Your task to perform on an android device: Open Youtube and go to "Your channel" Image 0: 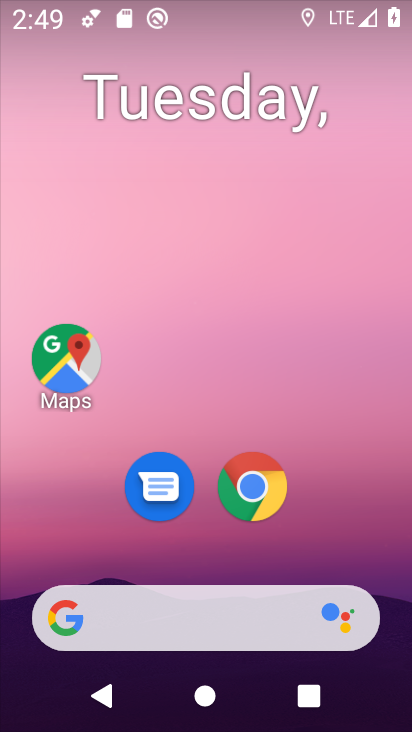
Step 0: press home button
Your task to perform on an android device: Open Youtube and go to "Your channel" Image 1: 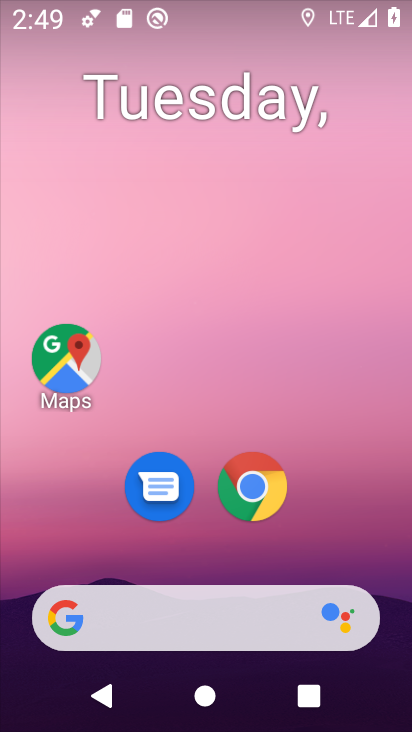
Step 1: drag from (350, 519) to (341, 77)
Your task to perform on an android device: Open Youtube and go to "Your channel" Image 2: 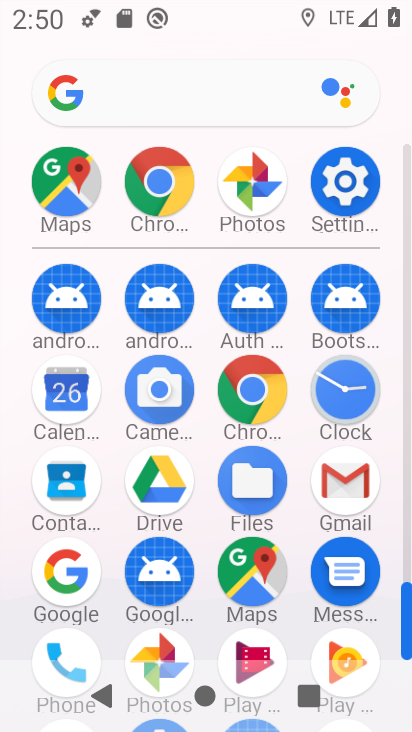
Step 2: drag from (397, 518) to (383, 237)
Your task to perform on an android device: Open Youtube and go to "Your channel" Image 3: 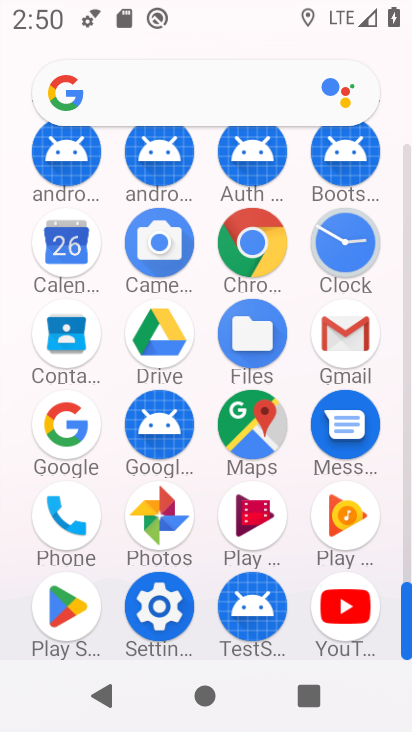
Step 3: click (341, 603)
Your task to perform on an android device: Open Youtube and go to "Your channel" Image 4: 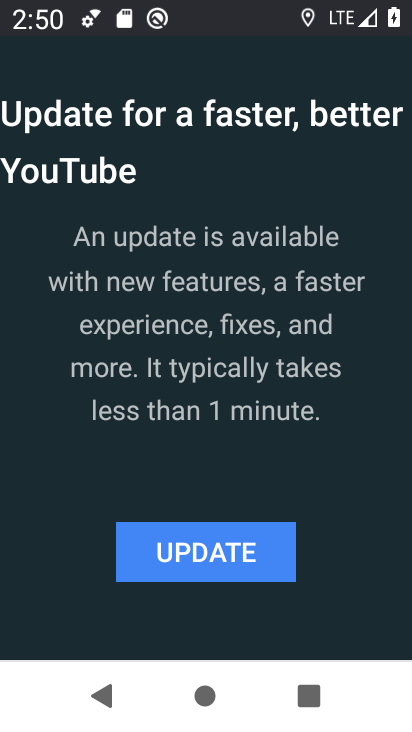
Step 4: click (234, 568)
Your task to perform on an android device: Open Youtube and go to "Your channel" Image 5: 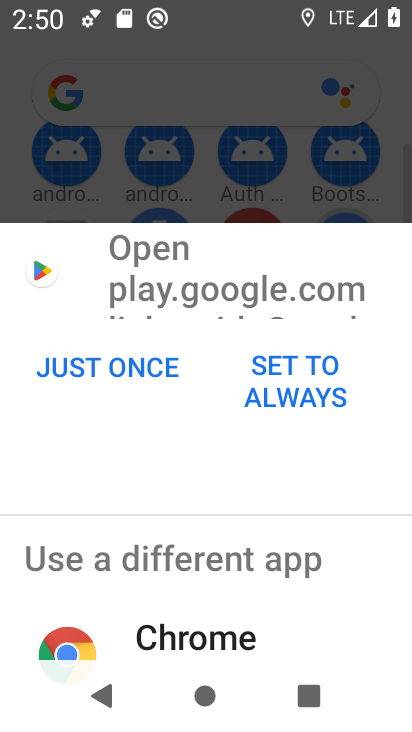
Step 5: click (107, 369)
Your task to perform on an android device: Open Youtube and go to "Your channel" Image 6: 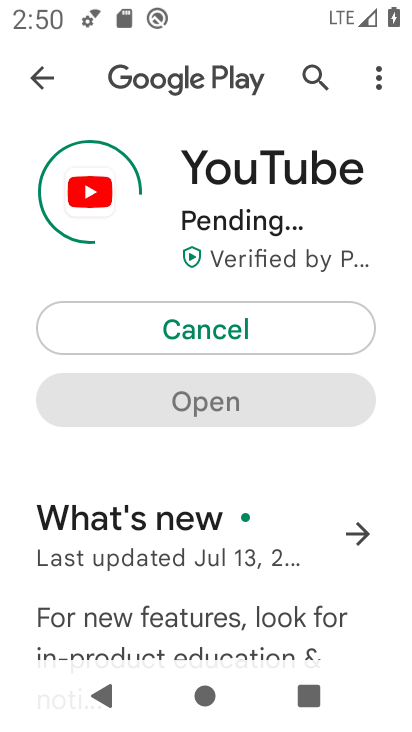
Step 6: click (233, 338)
Your task to perform on an android device: Open Youtube and go to "Your channel" Image 7: 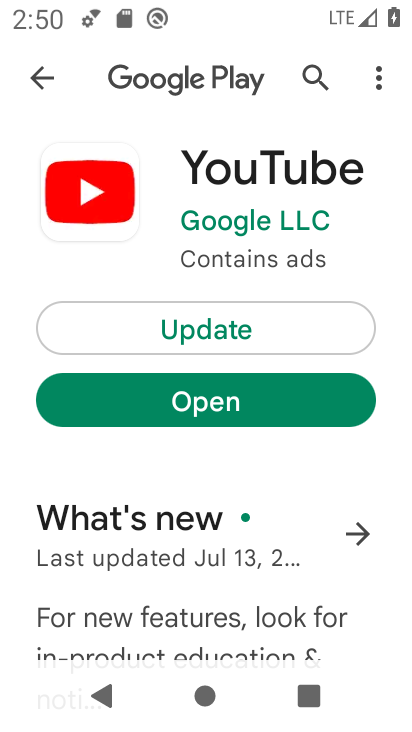
Step 7: click (244, 321)
Your task to perform on an android device: Open Youtube and go to "Your channel" Image 8: 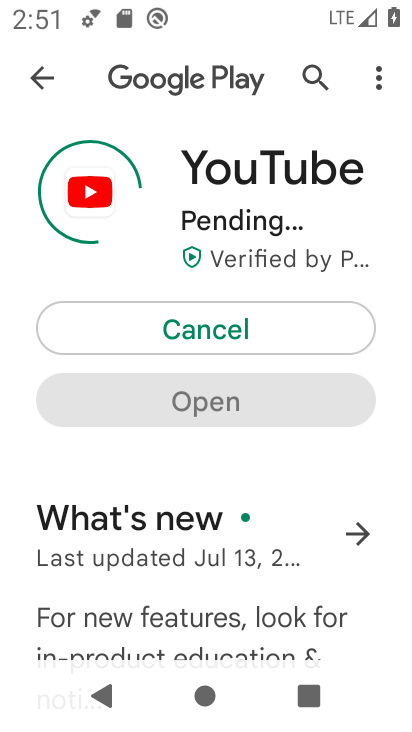
Step 8: task complete